Your task to perform on an android device: turn off wifi Image 0: 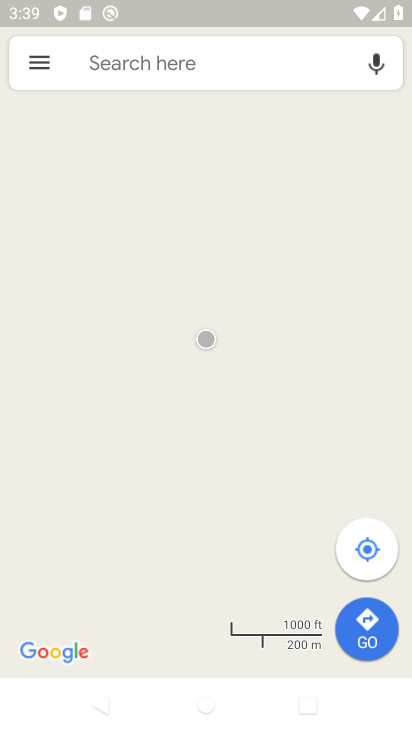
Step 0: press home button
Your task to perform on an android device: turn off wifi Image 1: 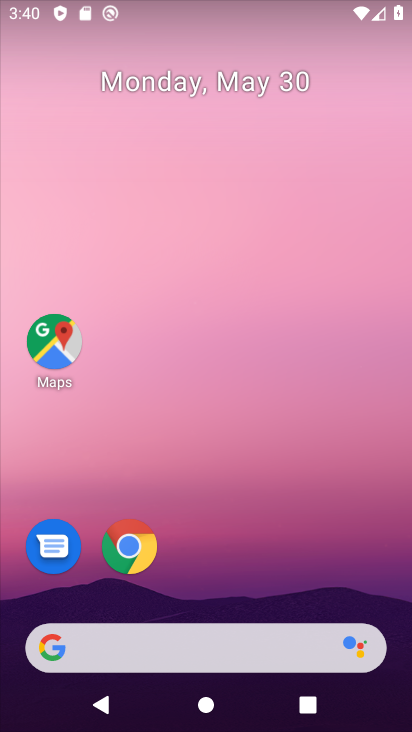
Step 1: drag from (67, 3) to (326, 371)
Your task to perform on an android device: turn off wifi Image 2: 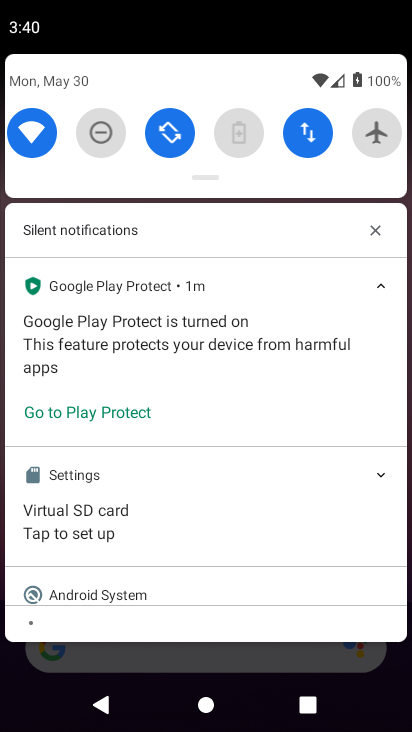
Step 2: click (26, 141)
Your task to perform on an android device: turn off wifi Image 3: 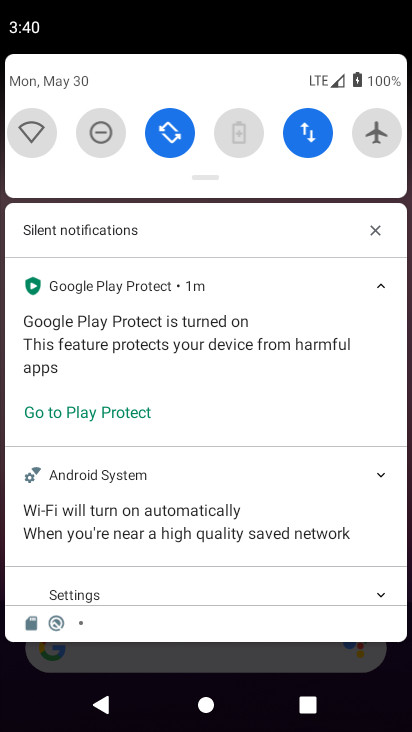
Step 3: task complete